Your task to perform on an android device: Search for vegetarian restaurants on Maps Image 0: 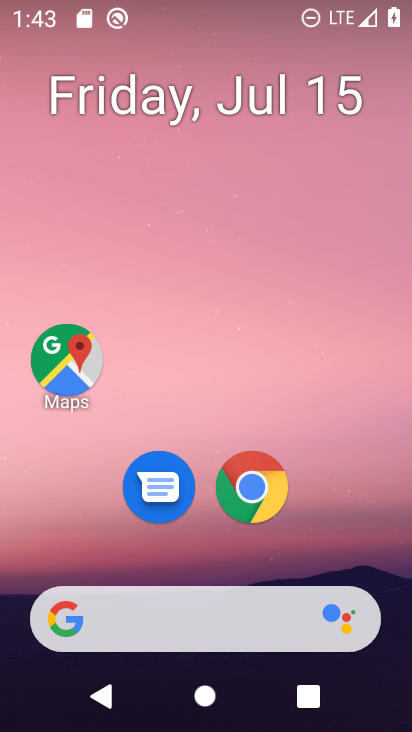
Step 0: drag from (248, 564) to (274, 193)
Your task to perform on an android device: Search for vegetarian restaurants on Maps Image 1: 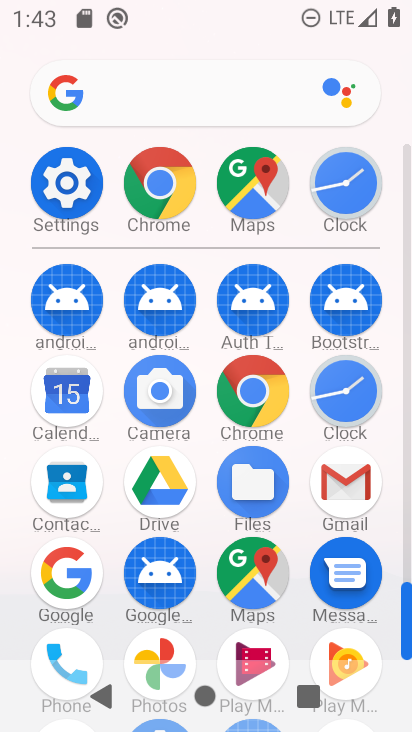
Step 1: click (240, 195)
Your task to perform on an android device: Search for vegetarian restaurants on Maps Image 2: 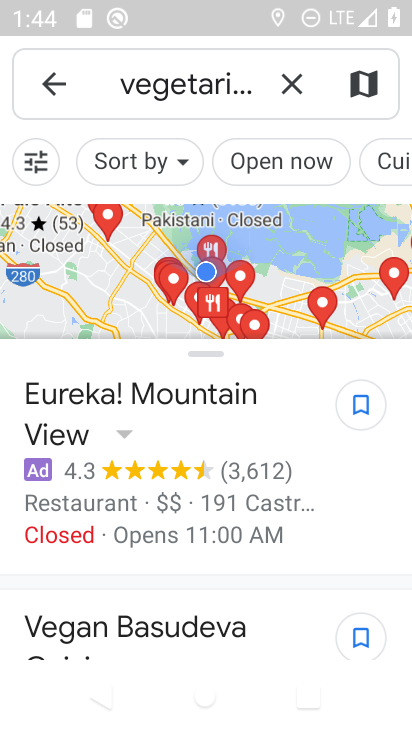
Step 2: task complete